Your task to perform on an android device: change your default location settings in chrome Image 0: 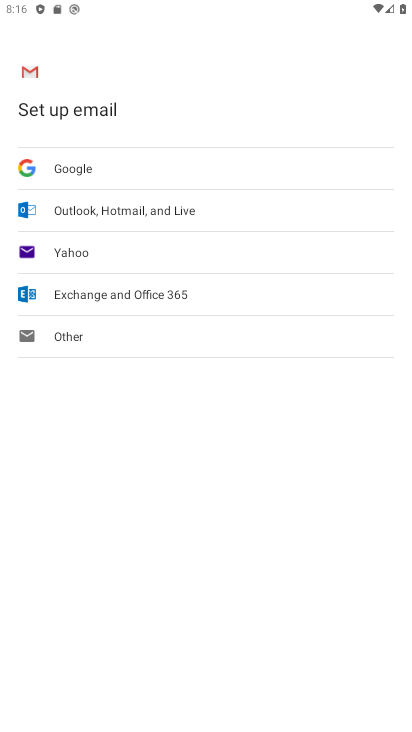
Step 0: task complete